Your task to perform on an android device: Open the stopwatch Image 0: 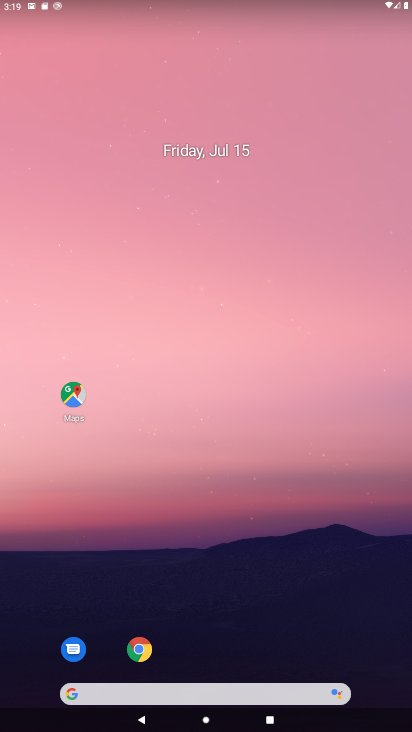
Step 0: drag from (374, 665) to (320, 131)
Your task to perform on an android device: Open the stopwatch Image 1: 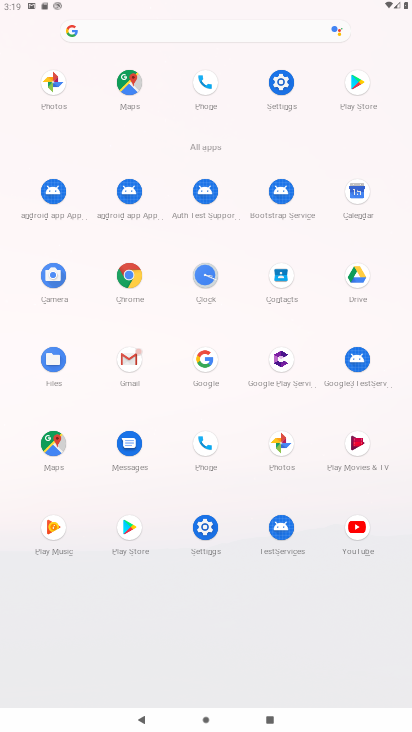
Step 1: click (205, 274)
Your task to perform on an android device: Open the stopwatch Image 2: 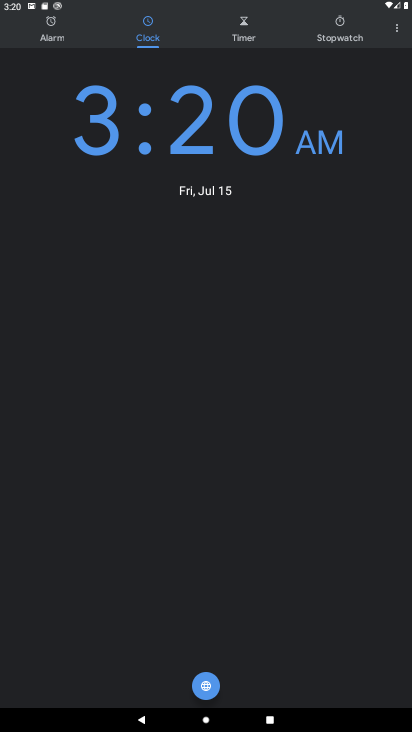
Step 2: click (341, 26)
Your task to perform on an android device: Open the stopwatch Image 3: 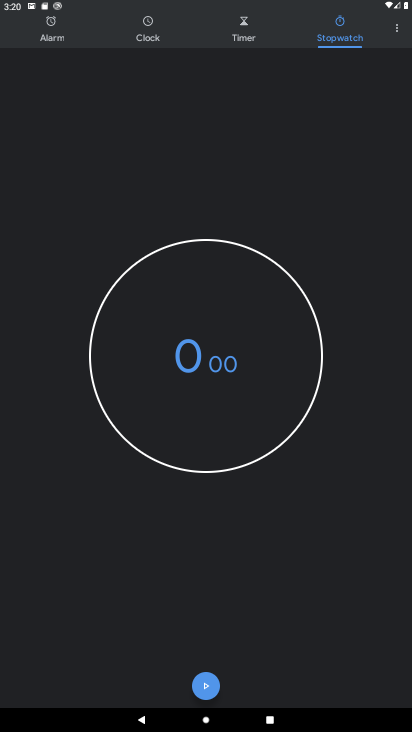
Step 3: task complete